Your task to perform on an android device: all mails in gmail Image 0: 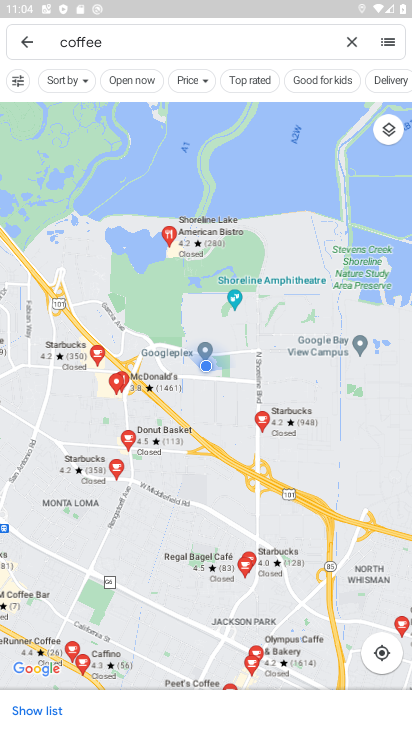
Step 0: click (348, 49)
Your task to perform on an android device: all mails in gmail Image 1: 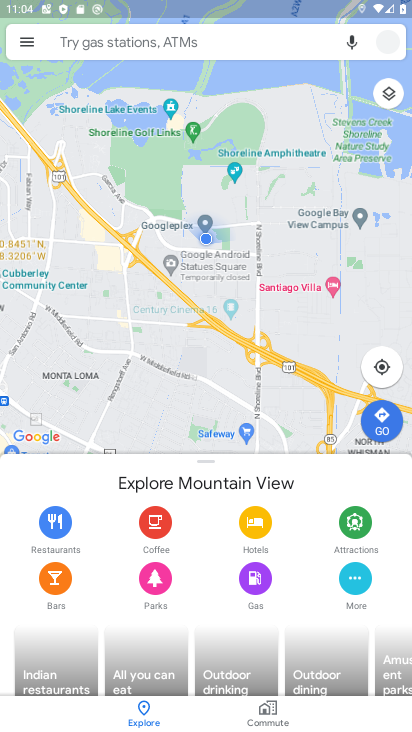
Step 1: click (311, 49)
Your task to perform on an android device: all mails in gmail Image 2: 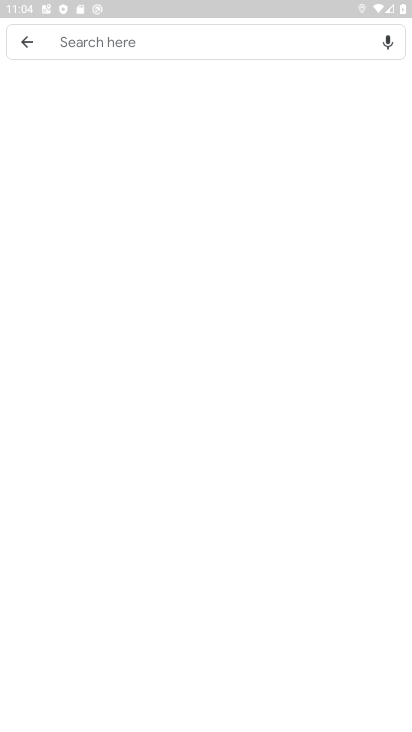
Step 2: click (282, 44)
Your task to perform on an android device: all mails in gmail Image 3: 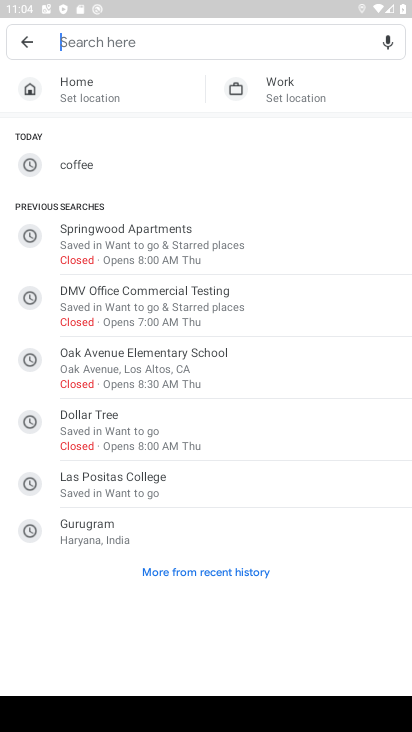
Step 3: press home button
Your task to perform on an android device: all mails in gmail Image 4: 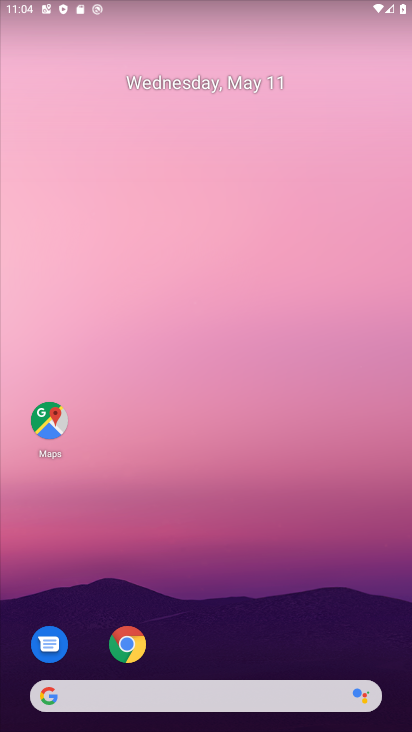
Step 4: drag from (222, 633) to (220, 153)
Your task to perform on an android device: all mails in gmail Image 5: 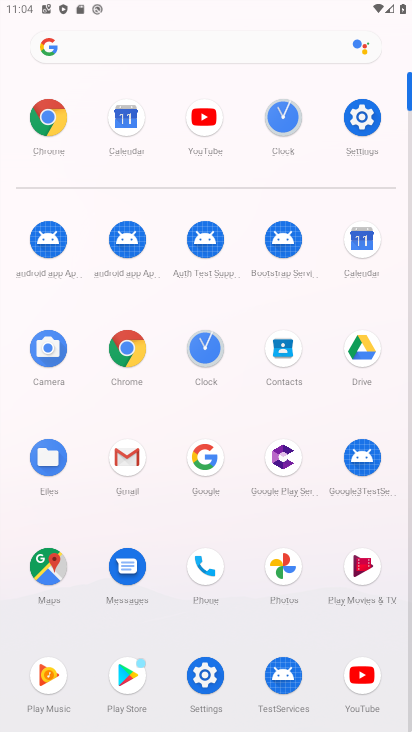
Step 5: click (136, 463)
Your task to perform on an android device: all mails in gmail Image 6: 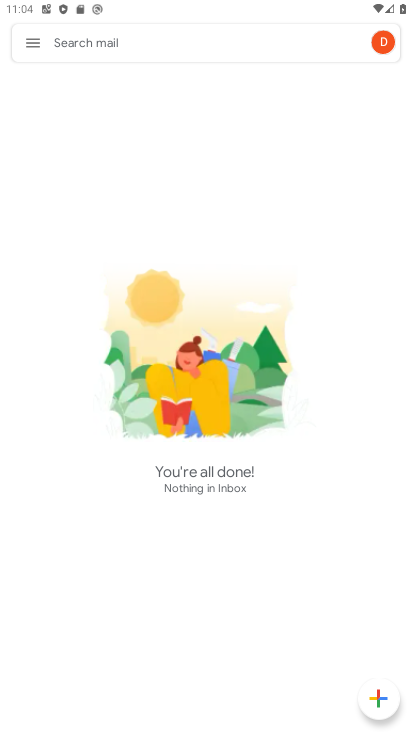
Step 6: click (36, 49)
Your task to perform on an android device: all mails in gmail Image 7: 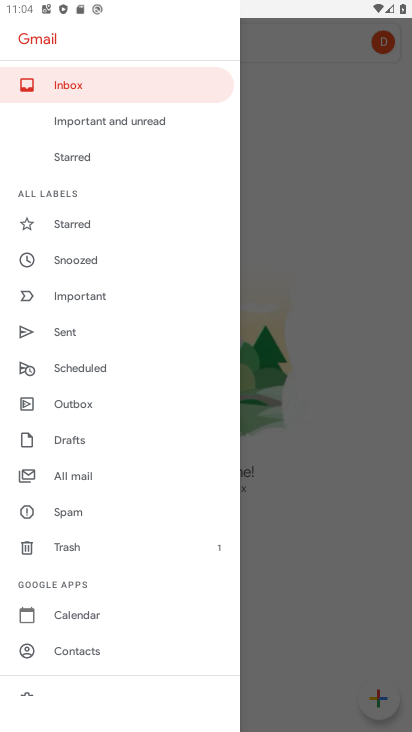
Step 7: click (70, 486)
Your task to perform on an android device: all mails in gmail Image 8: 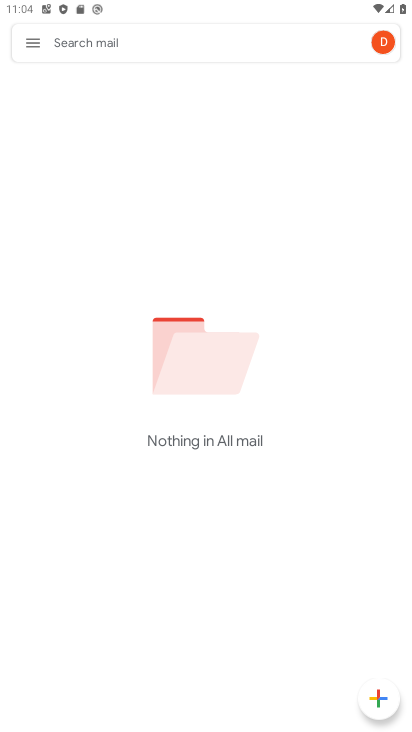
Step 8: task complete